Your task to perform on an android device: What's the news in Bolivia? Image 0: 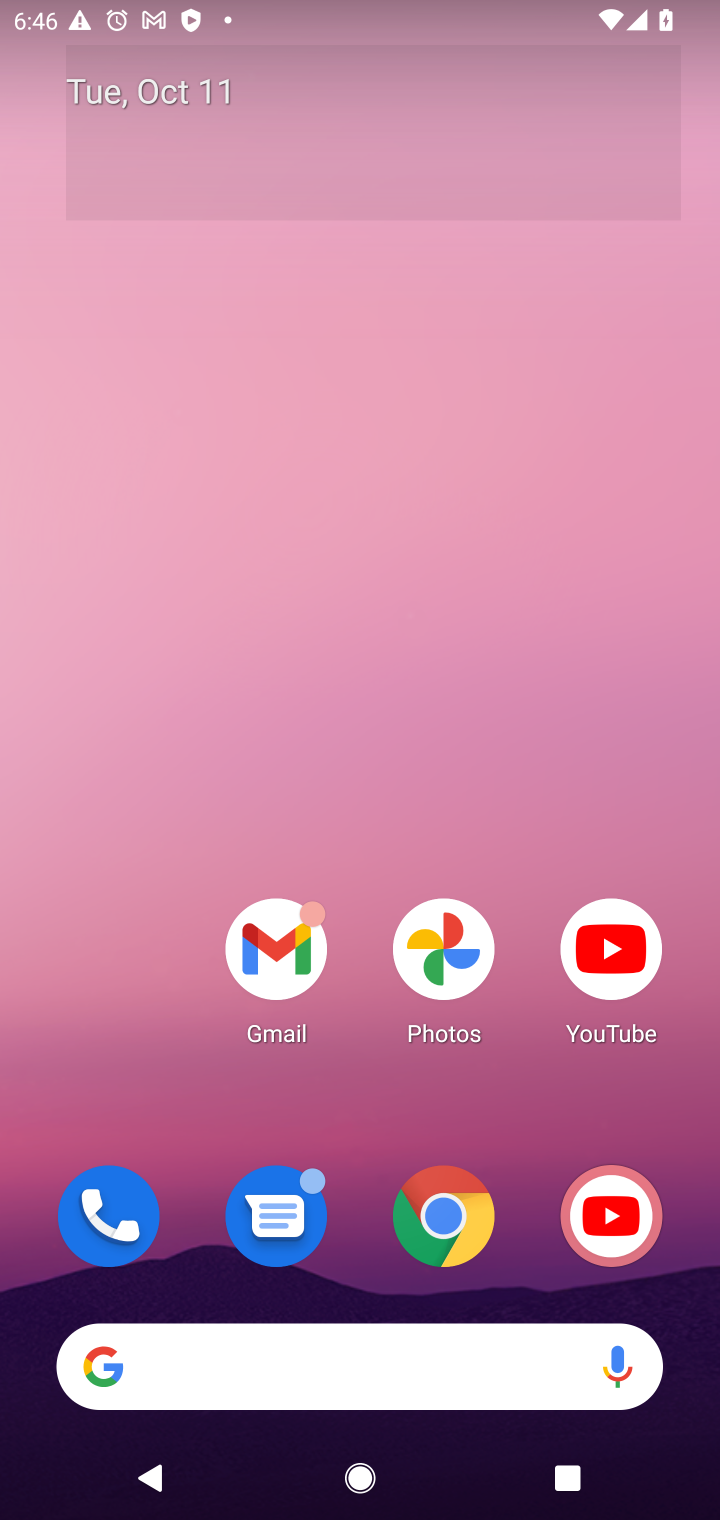
Step 0: drag from (428, 618) to (434, 23)
Your task to perform on an android device: What's the news in Bolivia? Image 1: 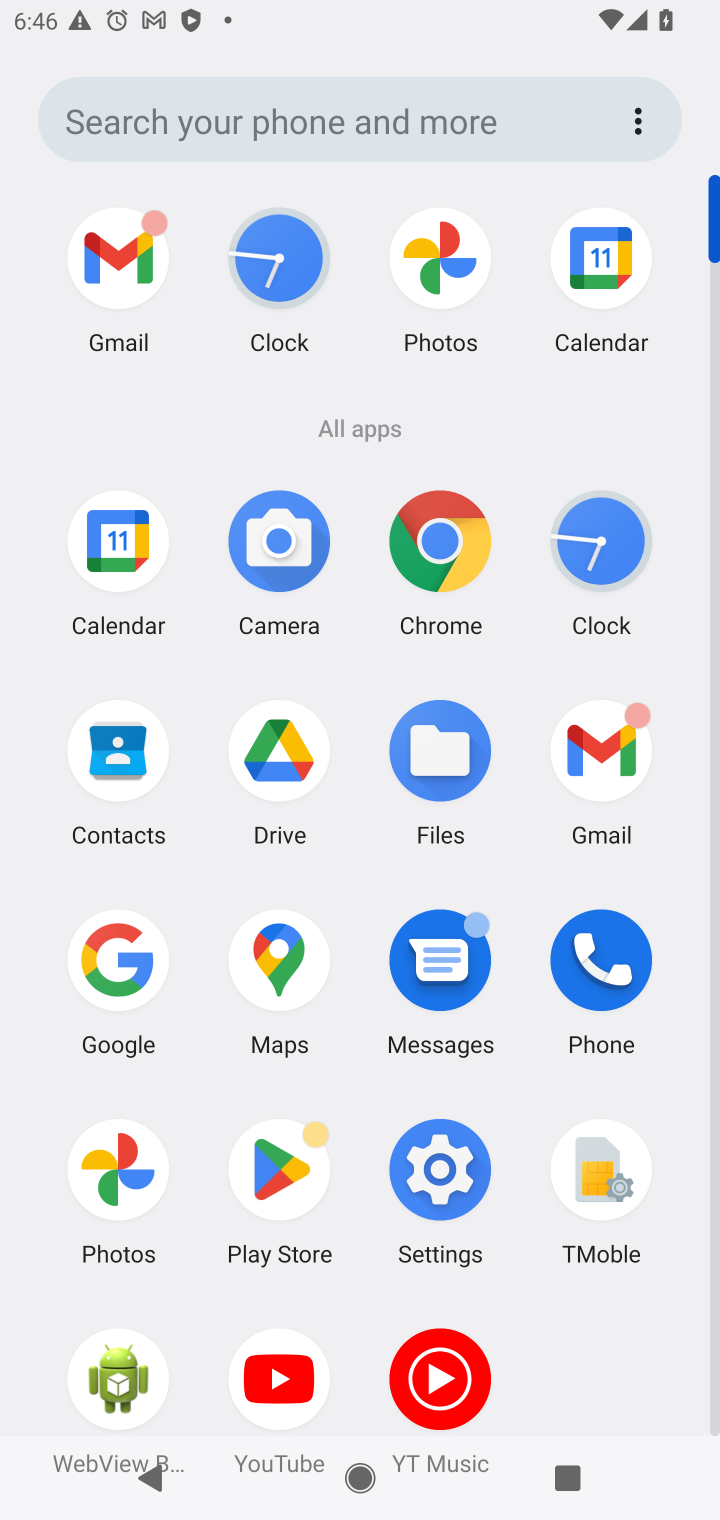
Step 1: click (443, 548)
Your task to perform on an android device: What's the news in Bolivia? Image 2: 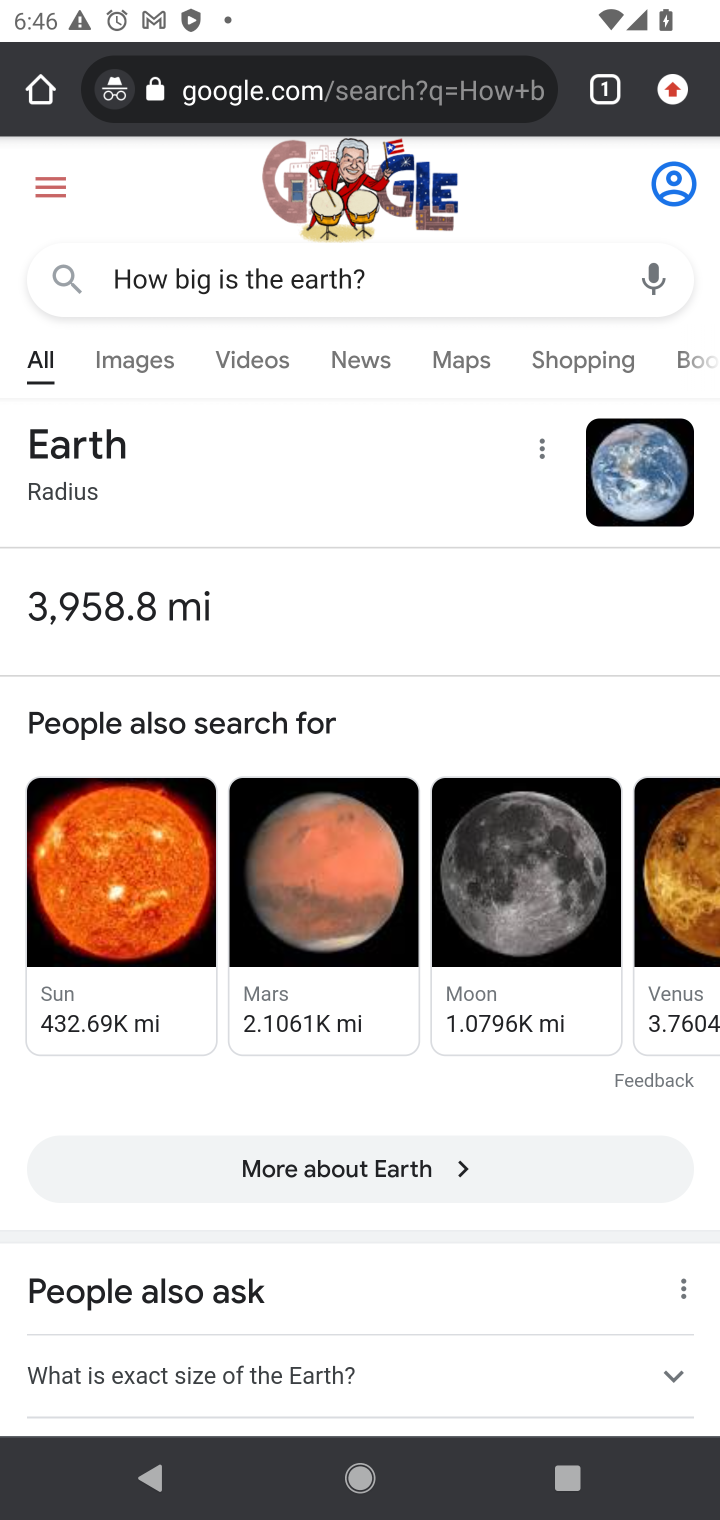
Step 2: click (440, 287)
Your task to perform on an android device: What's the news in Bolivia? Image 3: 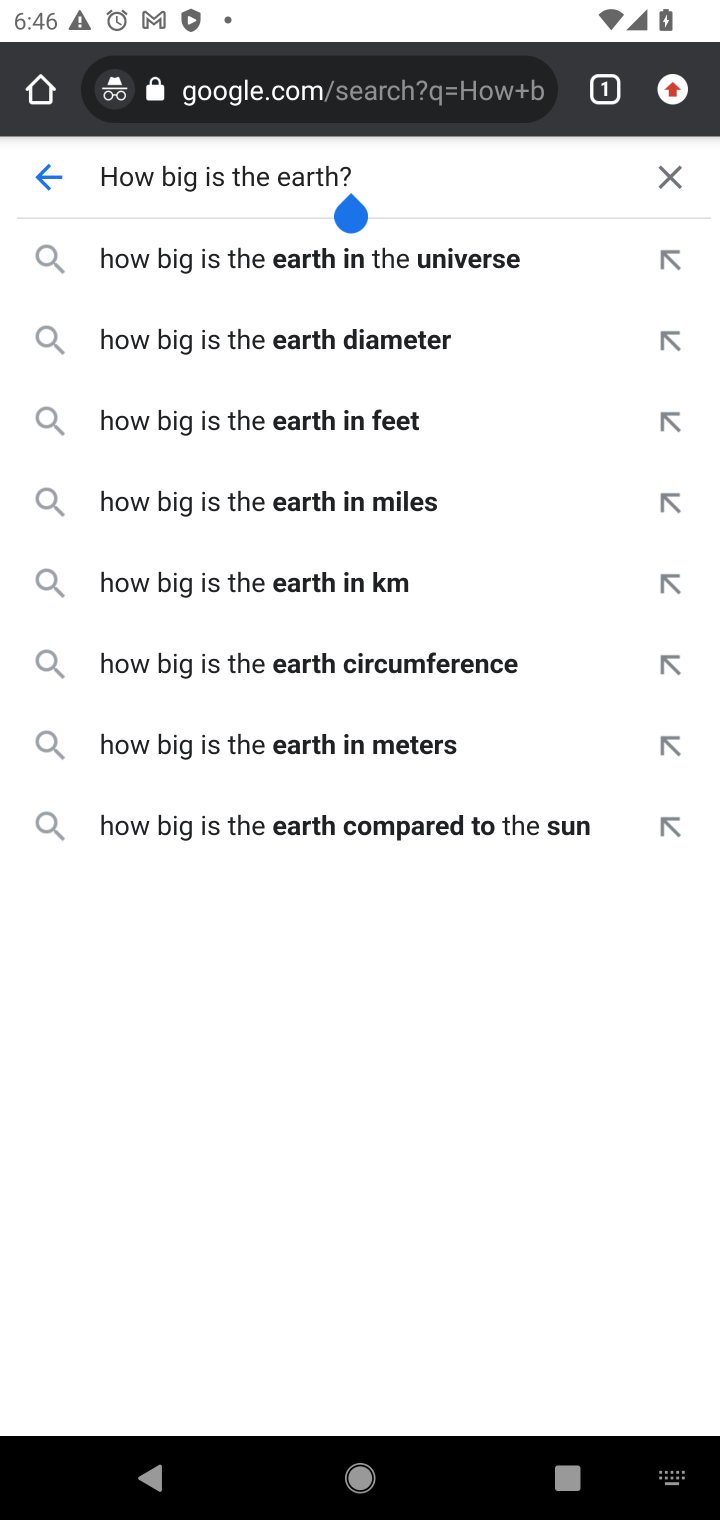
Step 3: click (657, 173)
Your task to perform on an android device: What's the news in Bolivia? Image 4: 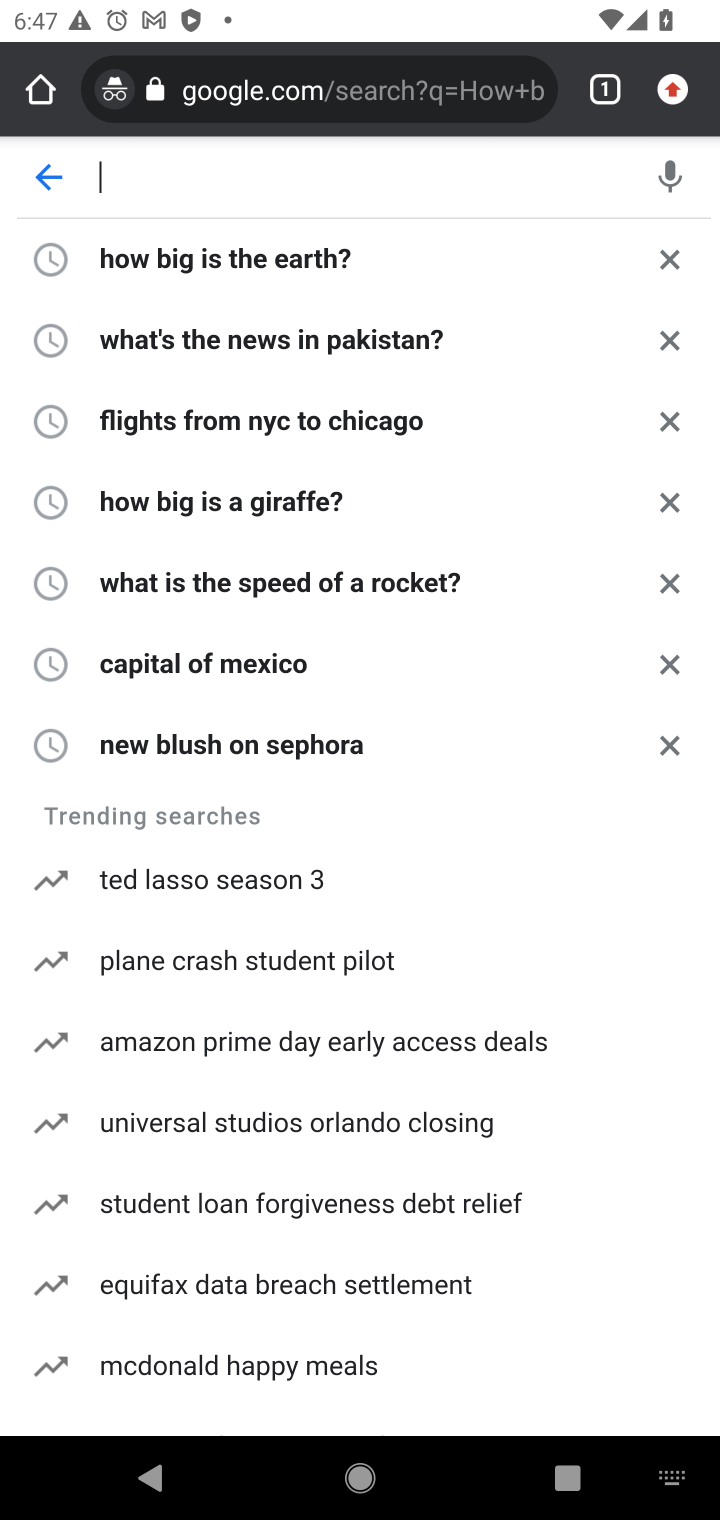
Step 4: type "news in bolivia"
Your task to perform on an android device: What's the news in Bolivia? Image 5: 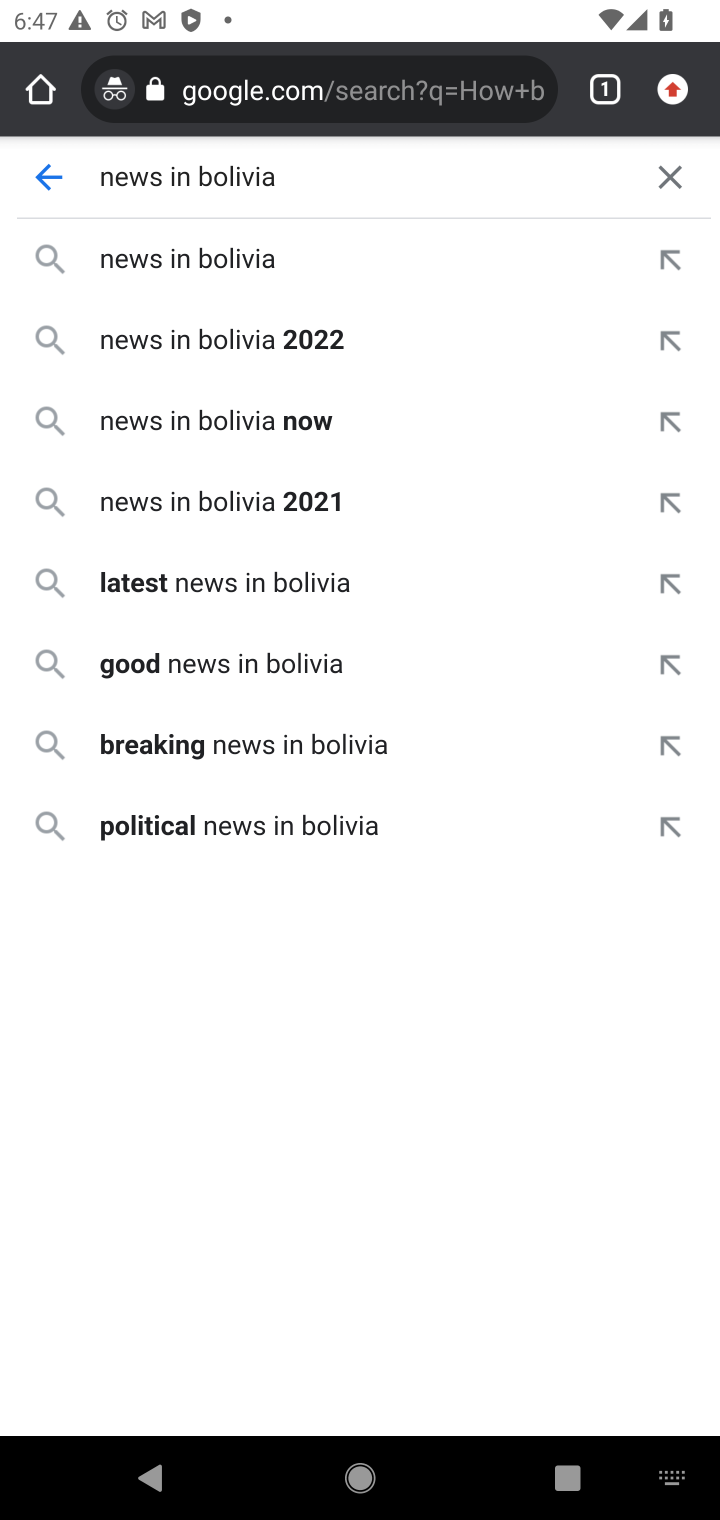
Step 5: press enter
Your task to perform on an android device: What's the news in Bolivia? Image 6: 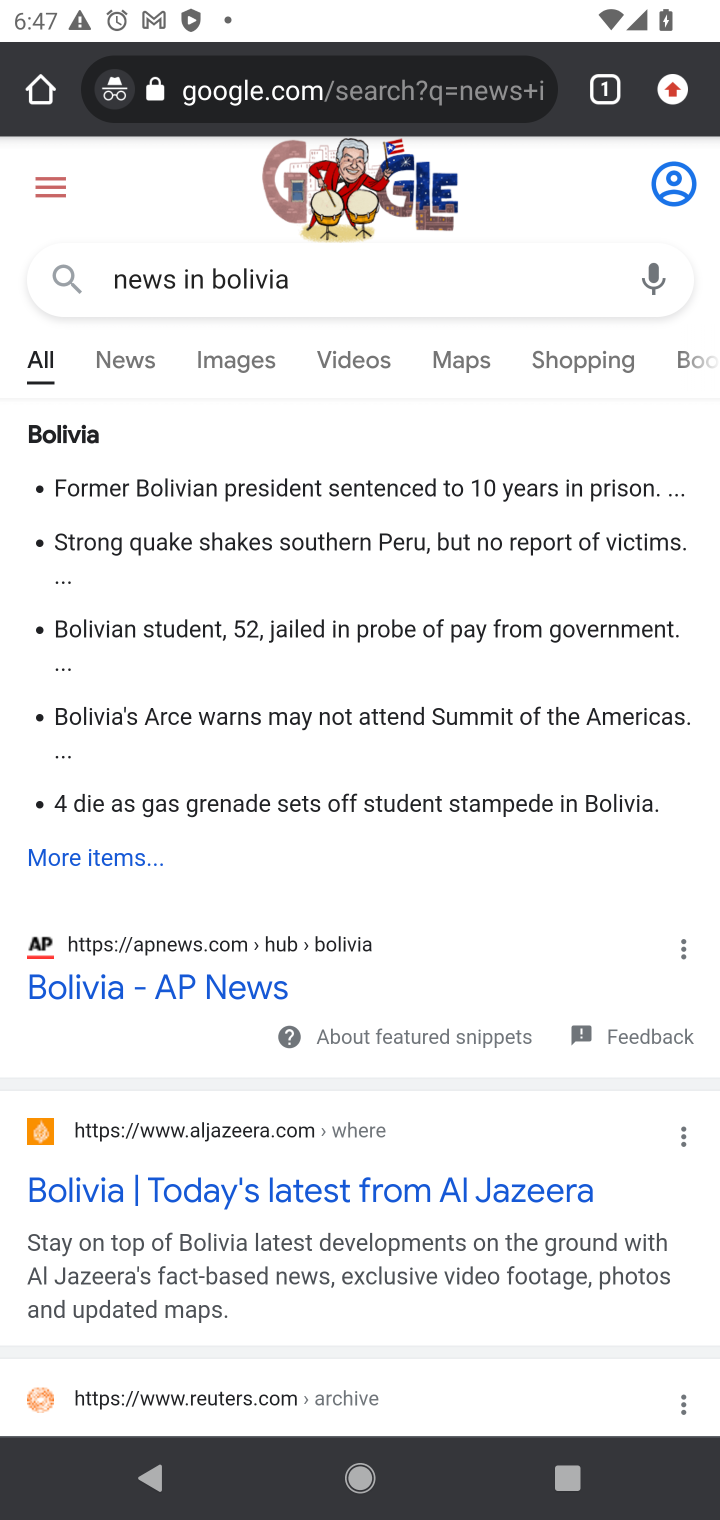
Step 6: click (110, 351)
Your task to perform on an android device: What's the news in Bolivia? Image 7: 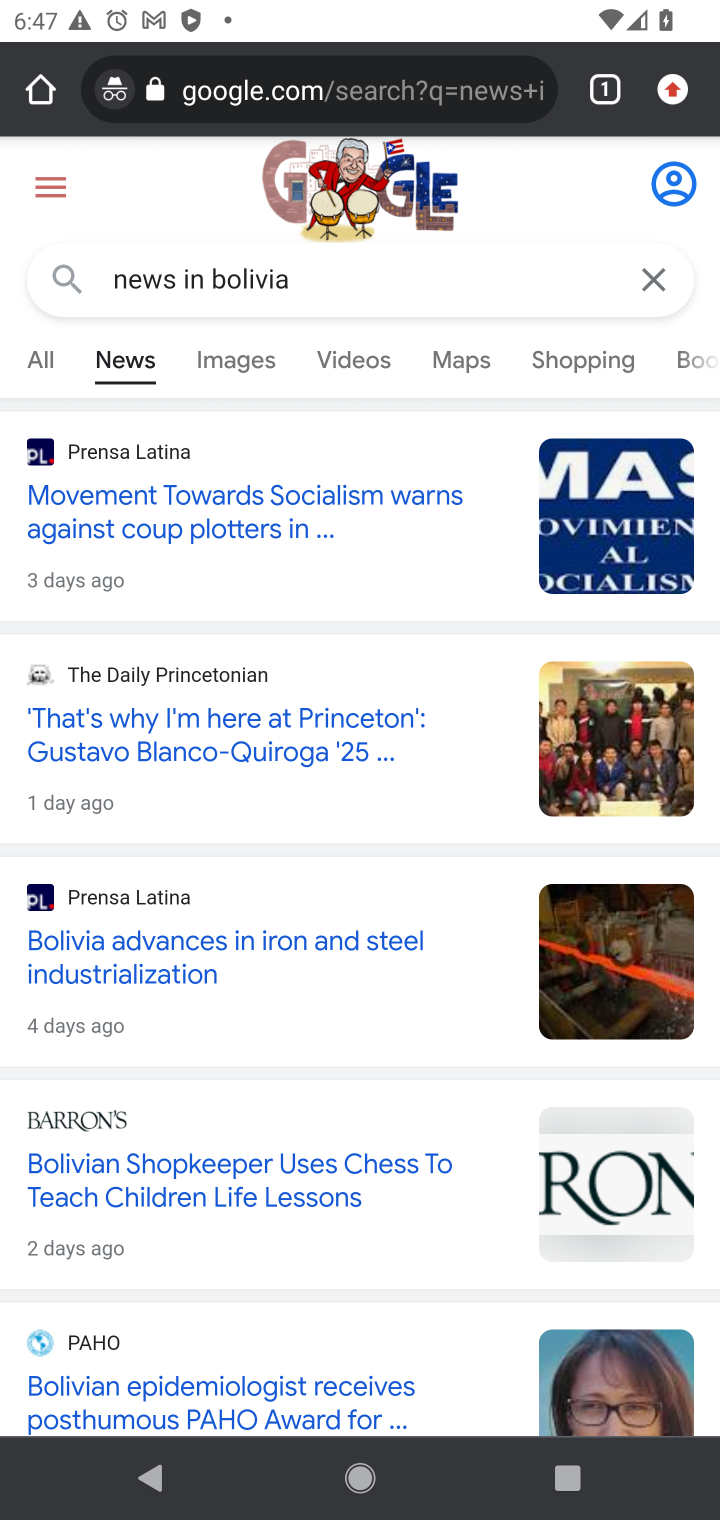
Step 7: task complete